Your task to perform on an android device: turn notification dots off Image 0: 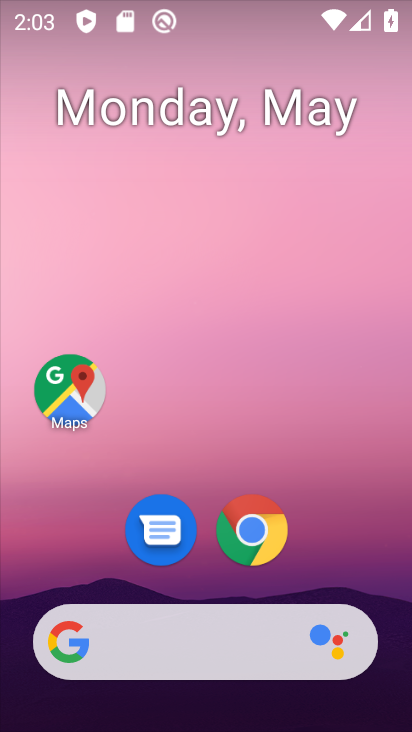
Step 0: drag from (206, 585) to (252, 180)
Your task to perform on an android device: turn notification dots off Image 1: 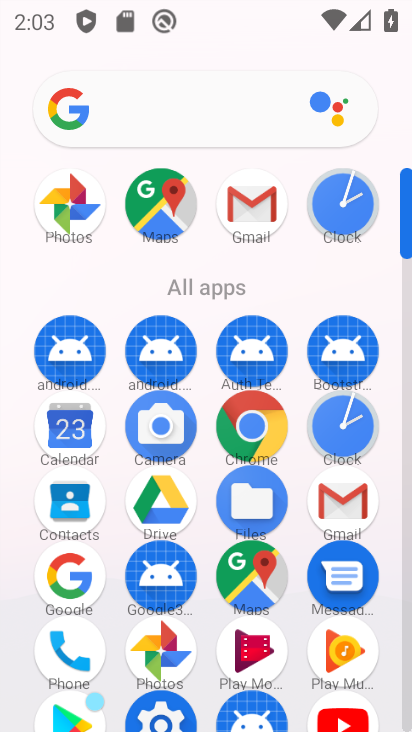
Step 1: drag from (173, 674) to (263, 143)
Your task to perform on an android device: turn notification dots off Image 2: 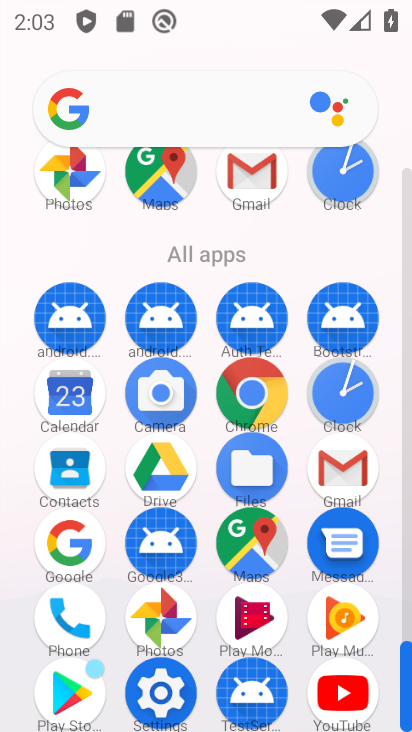
Step 2: click (154, 684)
Your task to perform on an android device: turn notification dots off Image 3: 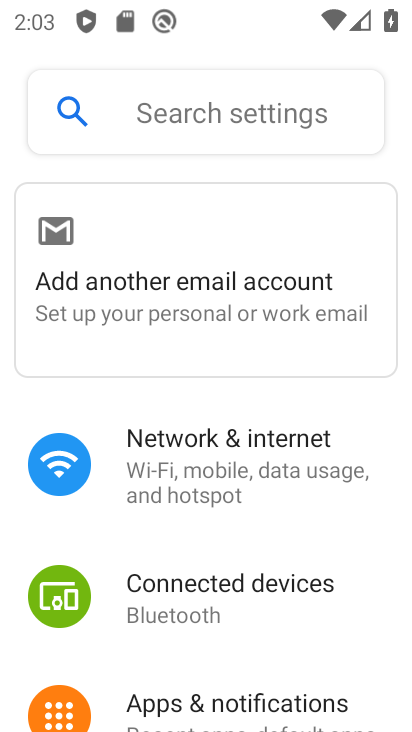
Step 3: click (277, 712)
Your task to perform on an android device: turn notification dots off Image 4: 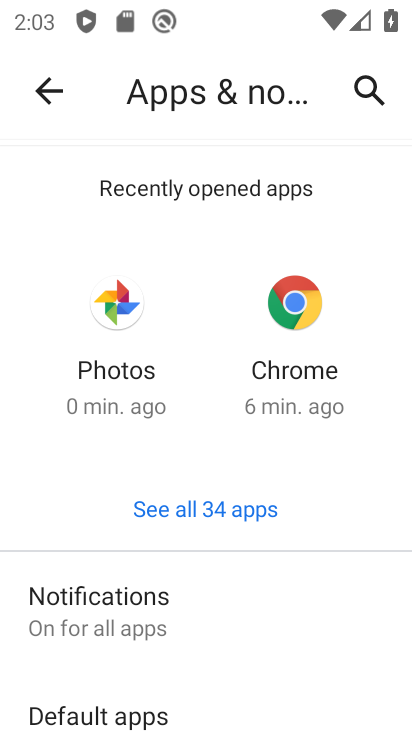
Step 4: click (231, 594)
Your task to perform on an android device: turn notification dots off Image 5: 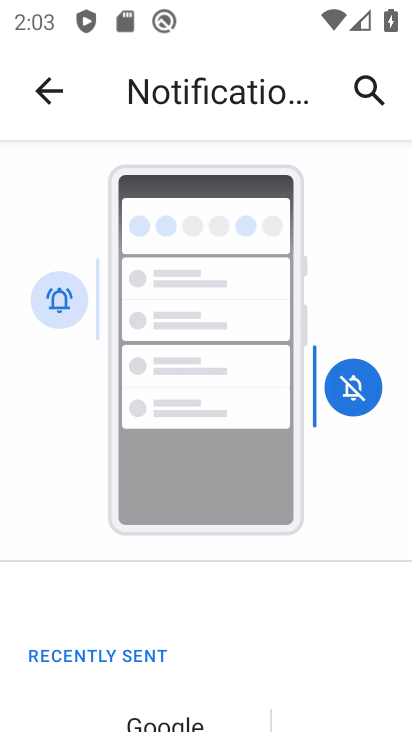
Step 5: drag from (324, 536) to (312, 75)
Your task to perform on an android device: turn notification dots off Image 6: 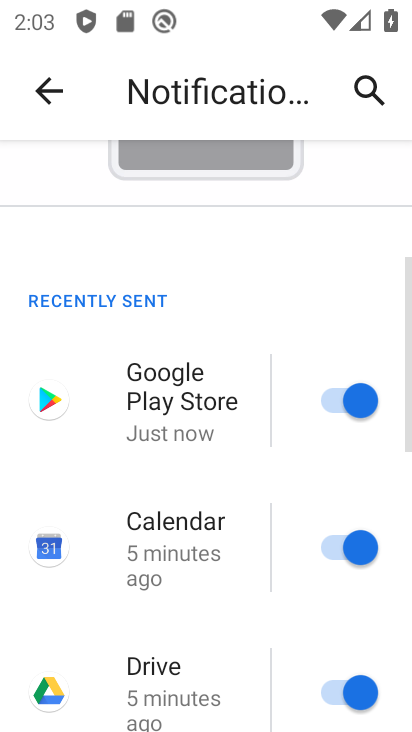
Step 6: drag from (197, 636) to (295, 149)
Your task to perform on an android device: turn notification dots off Image 7: 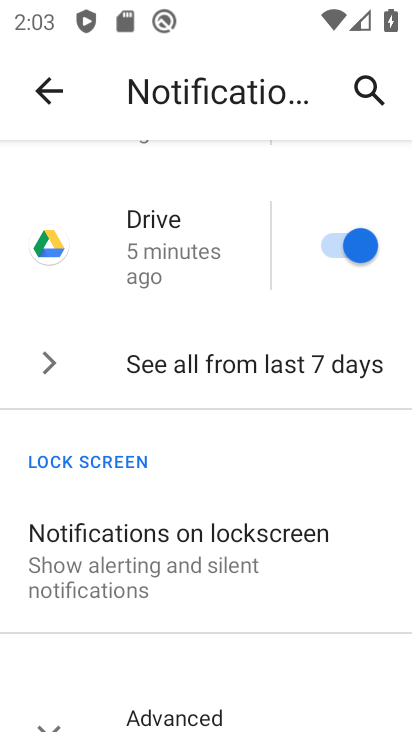
Step 7: drag from (232, 628) to (282, 160)
Your task to perform on an android device: turn notification dots off Image 8: 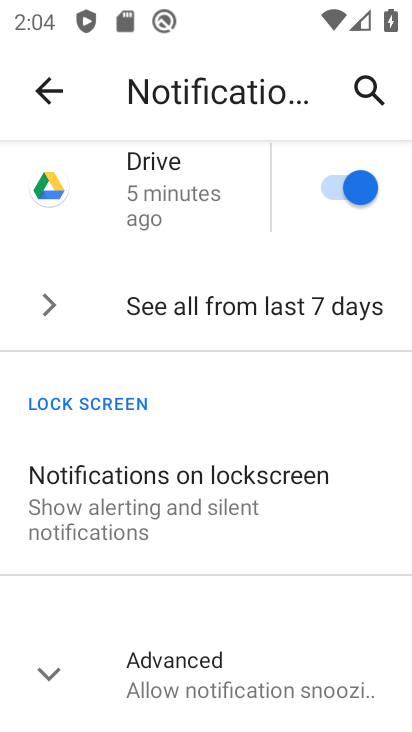
Step 8: click (196, 678)
Your task to perform on an android device: turn notification dots off Image 9: 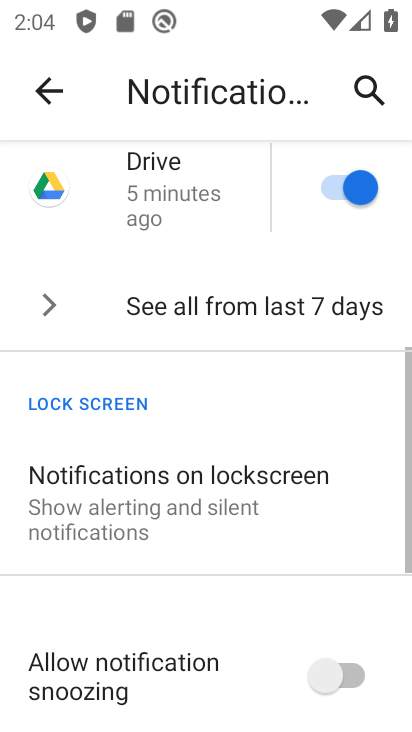
Step 9: drag from (196, 660) to (229, 231)
Your task to perform on an android device: turn notification dots off Image 10: 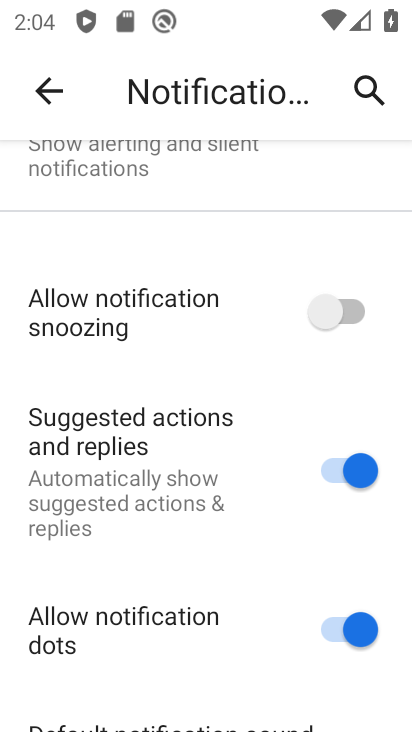
Step 10: click (352, 625)
Your task to perform on an android device: turn notification dots off Image 11: 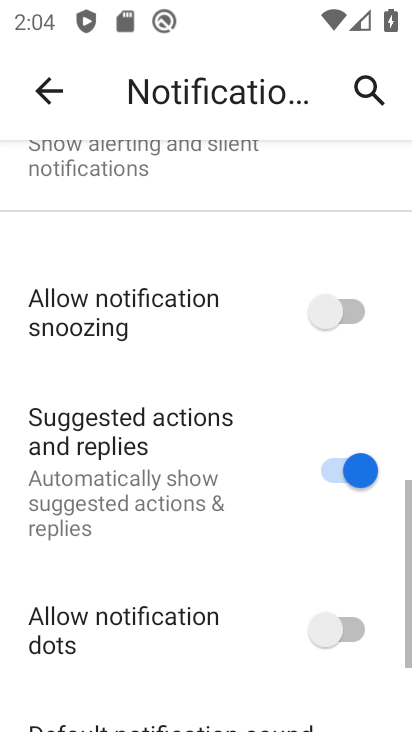
Step 11: task complete